Your task to perform on an android device: open app "Google Sheets" Image 0: 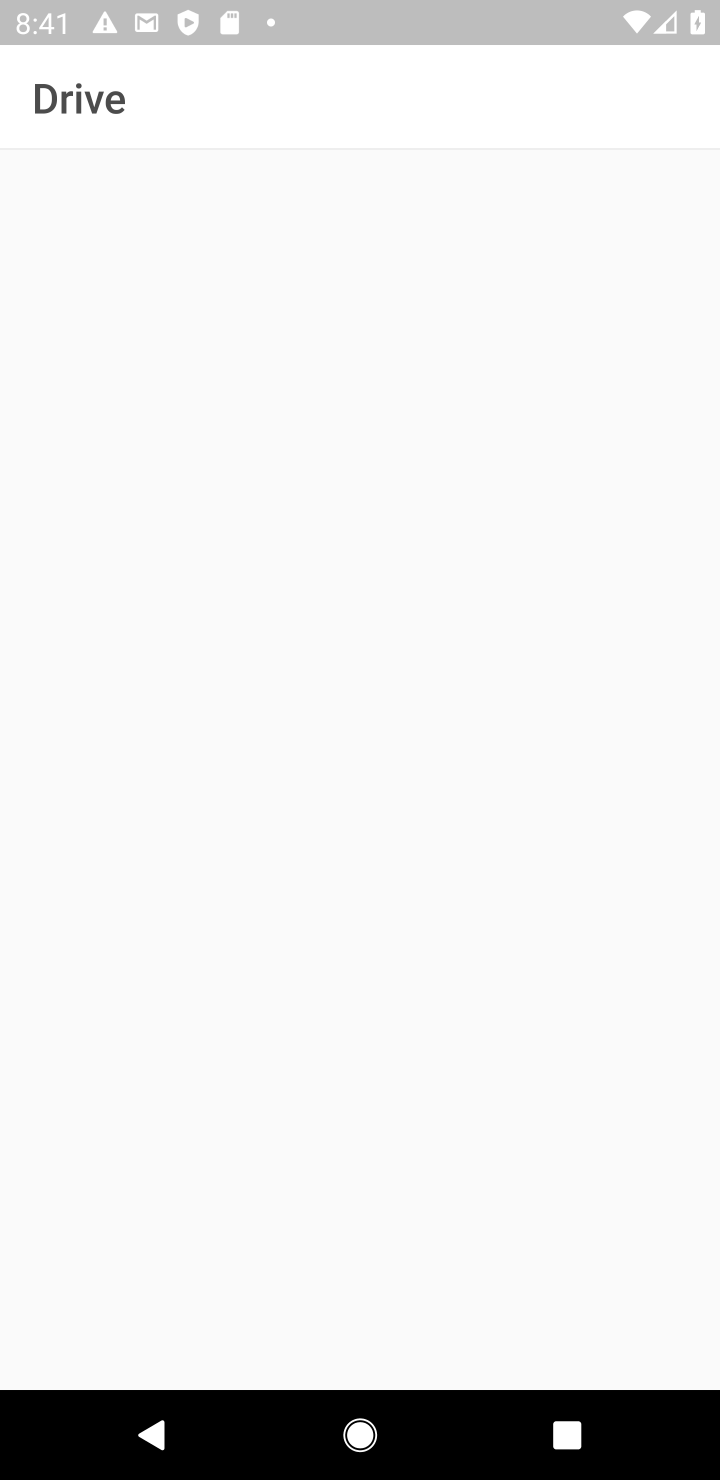
Step 0: press home button
Your task to perform on an android device: open app "Google Sheets" Image 1: 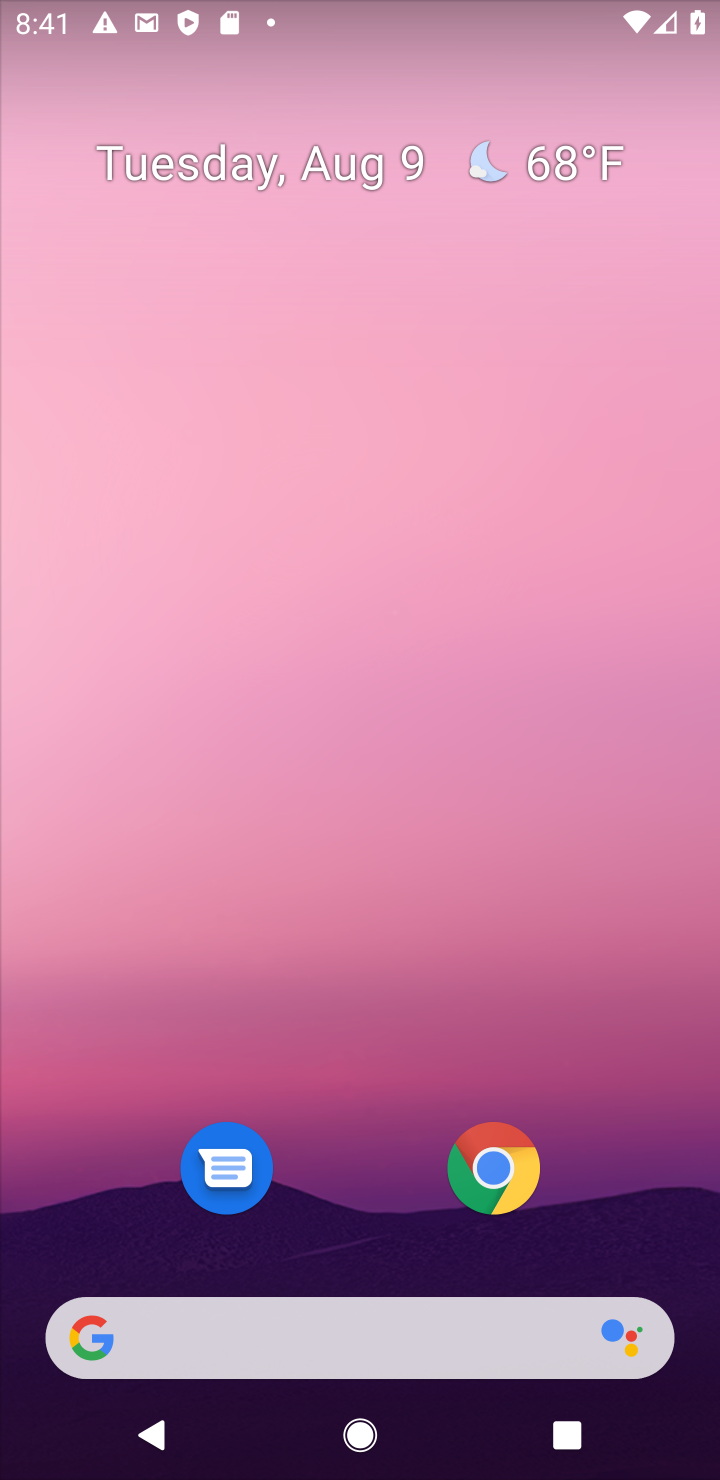
Step 1: drag from (451, 1323) to (460, 142)
Your task to perform on an android device: open app "Google Sheets" Image 2: 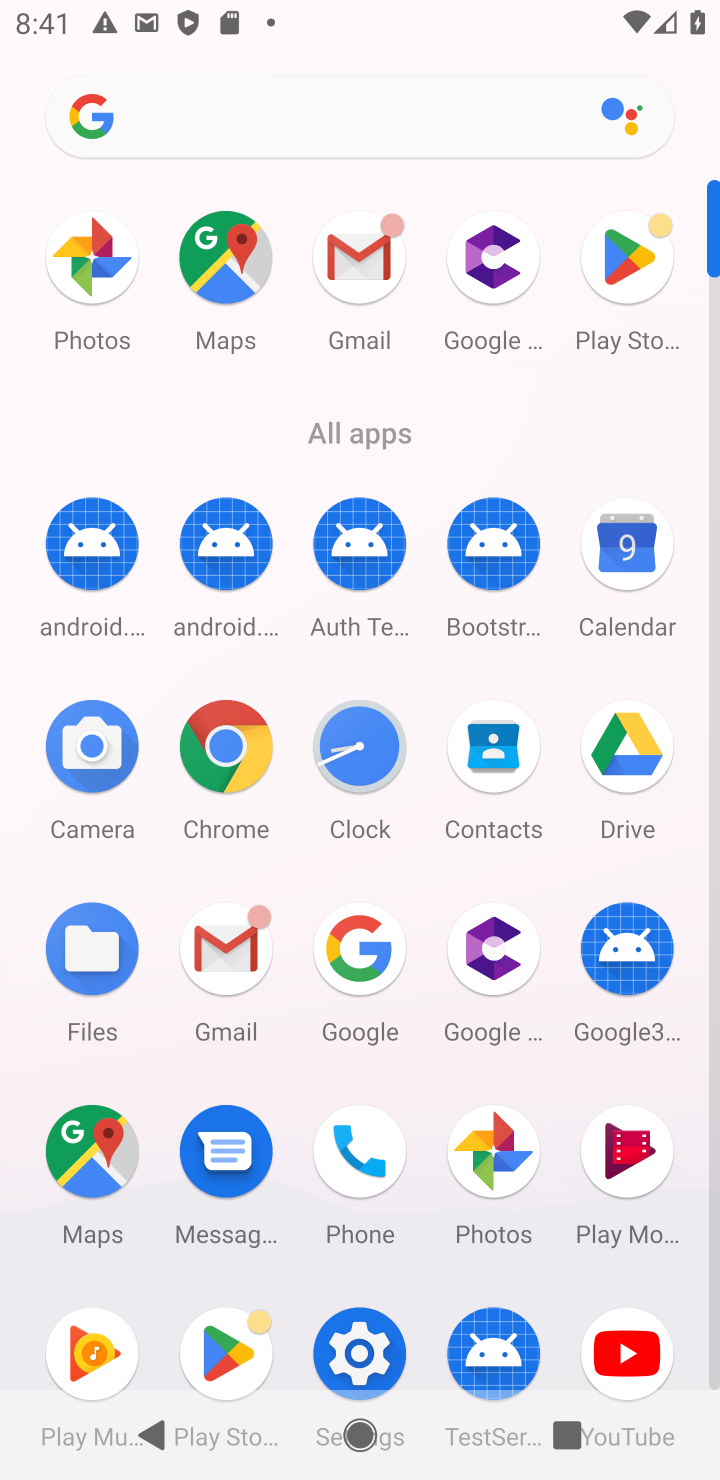
Step 2: click (637, 273)
Your task to perform on an android device: open app "Google Sheets" Image 3: 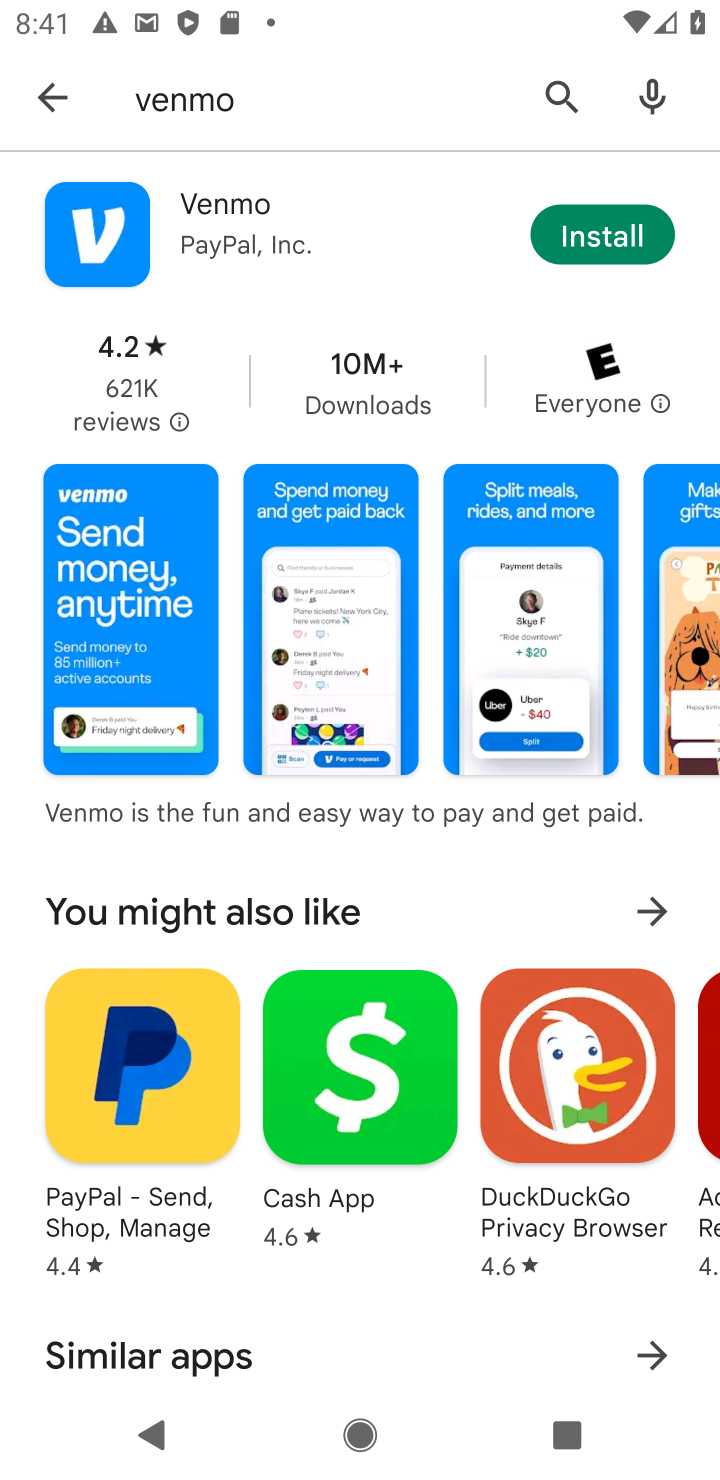
Step 3: click (559, 105)
Your task to perform on an android device: open app "Google Sheets" Image 4: 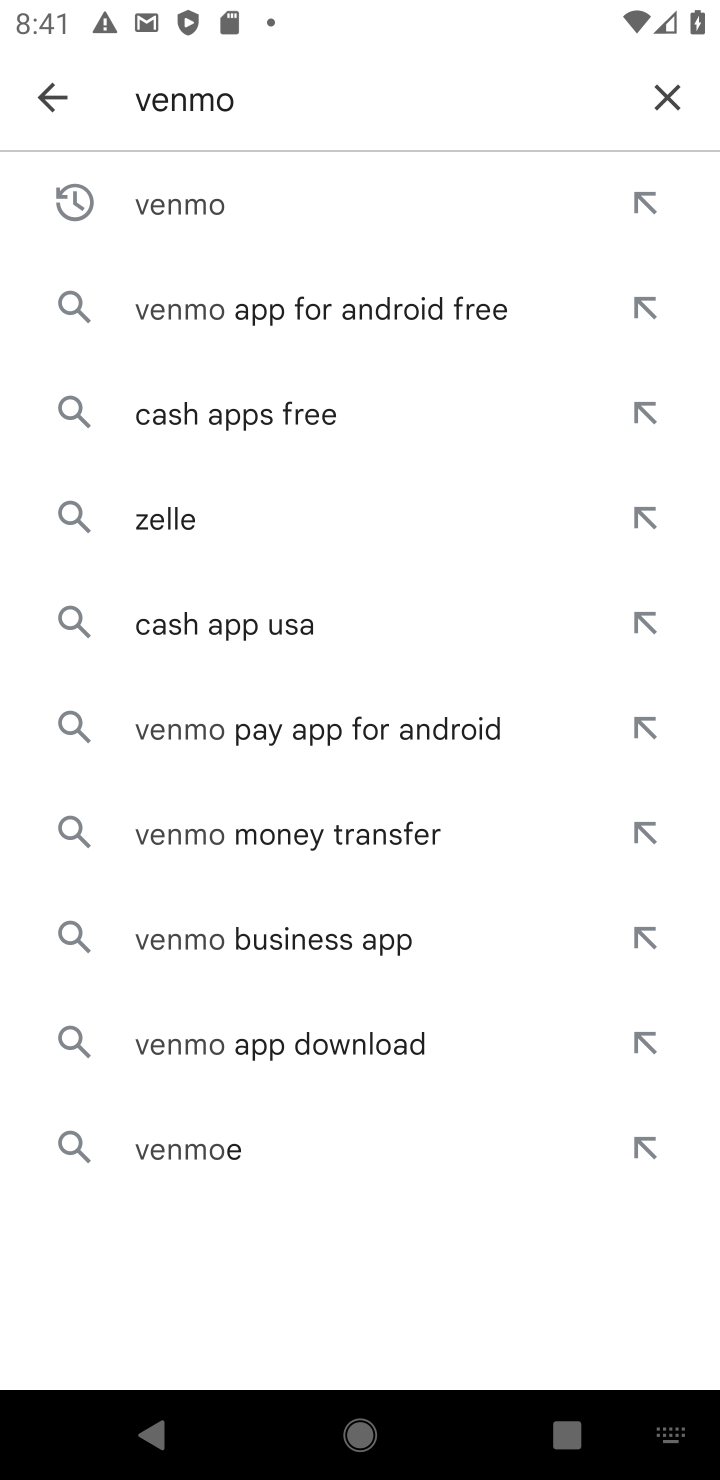
Step 4: click (678, 100)
Your task to perform on an android device: open app "Google Sheets" Image 5: 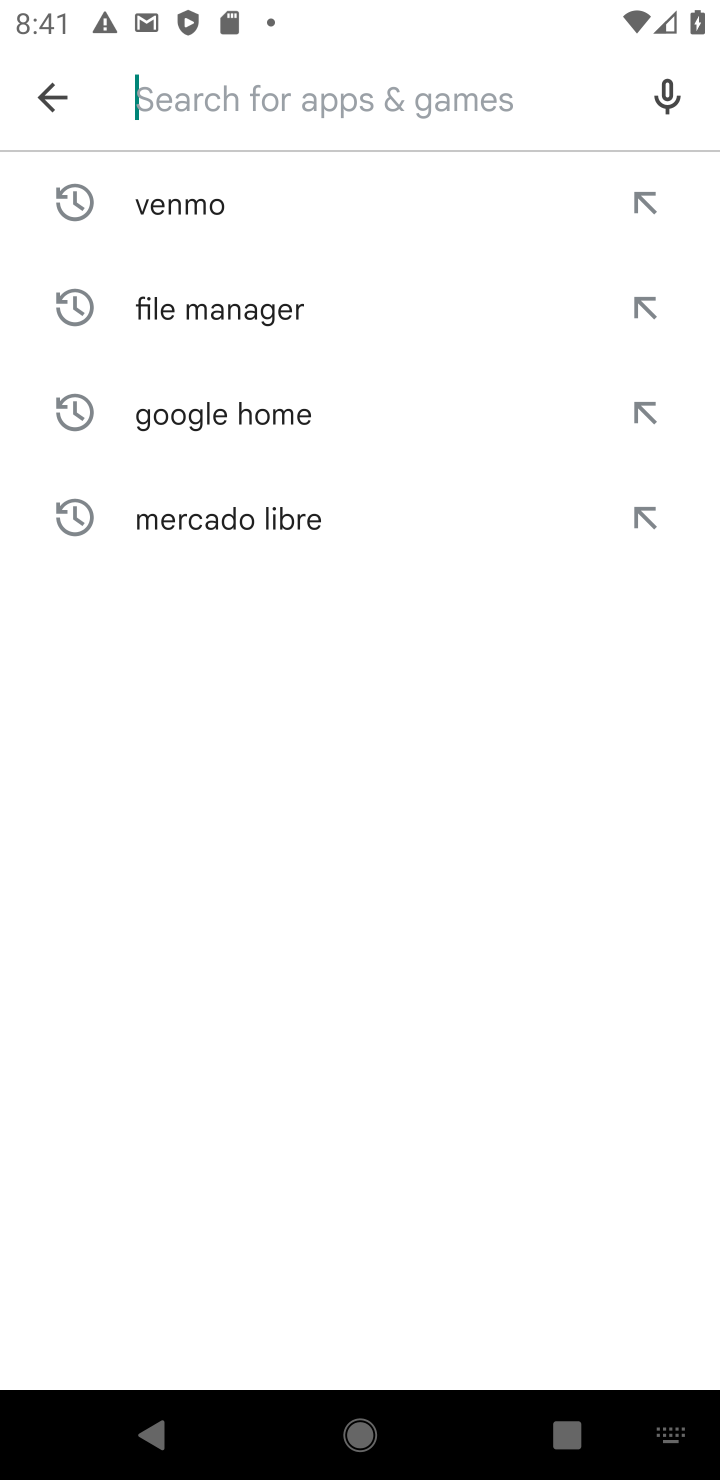
Step 5: type "google sheets"
Your task to perform on an android device: open app "Google Sheets" Image 6: 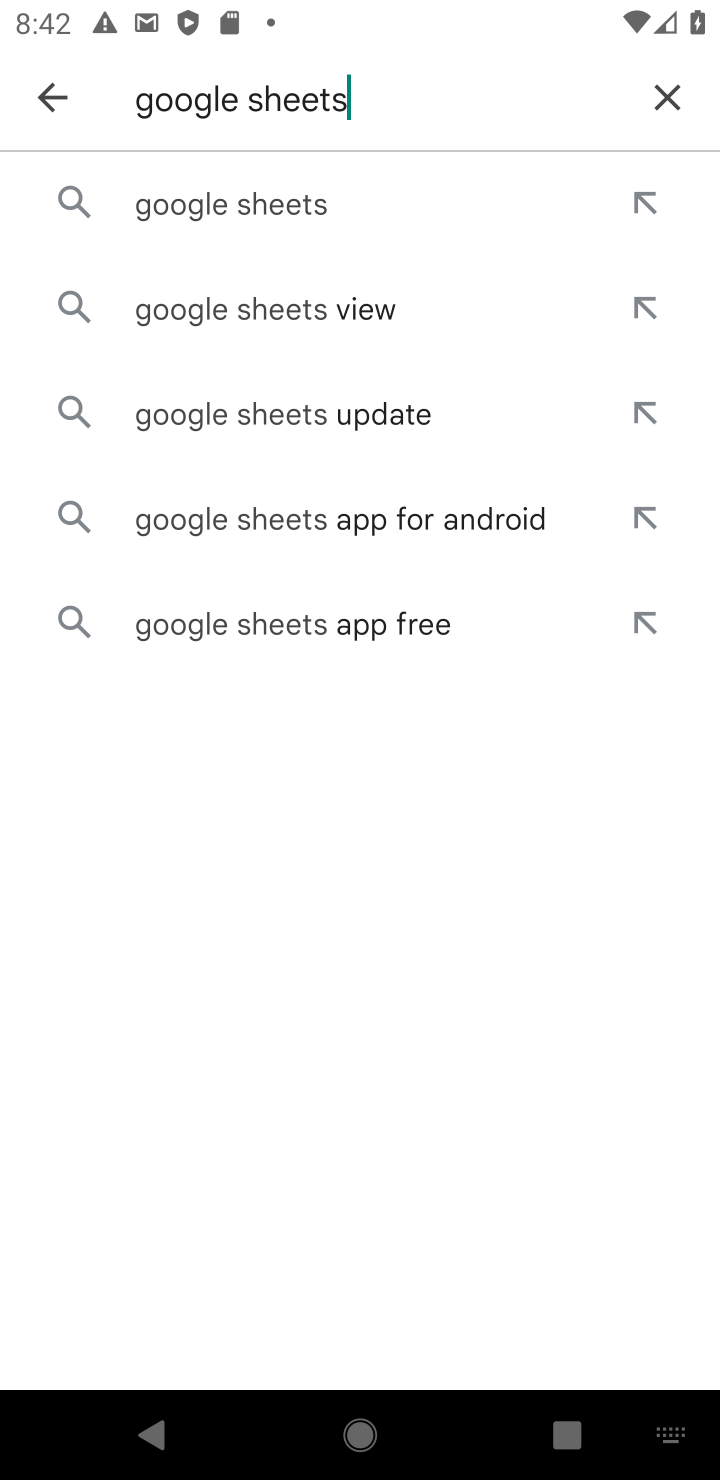
Step 6: click (303, 209)
Your task to perform on an android device: open app "Google Sheets" Image 7: 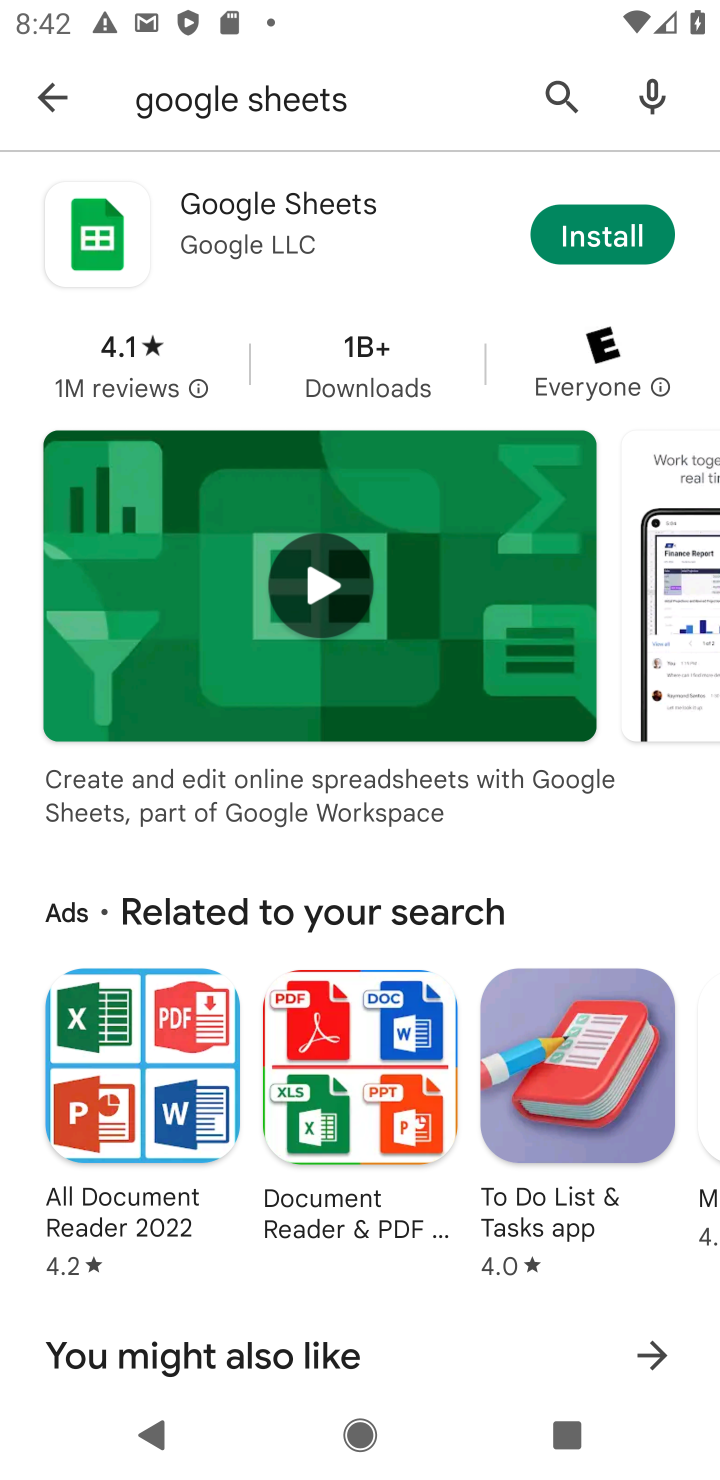
Step 7: task complete